Your task to perform on an android device: Open calendar and show me the third week of next month Image 0: 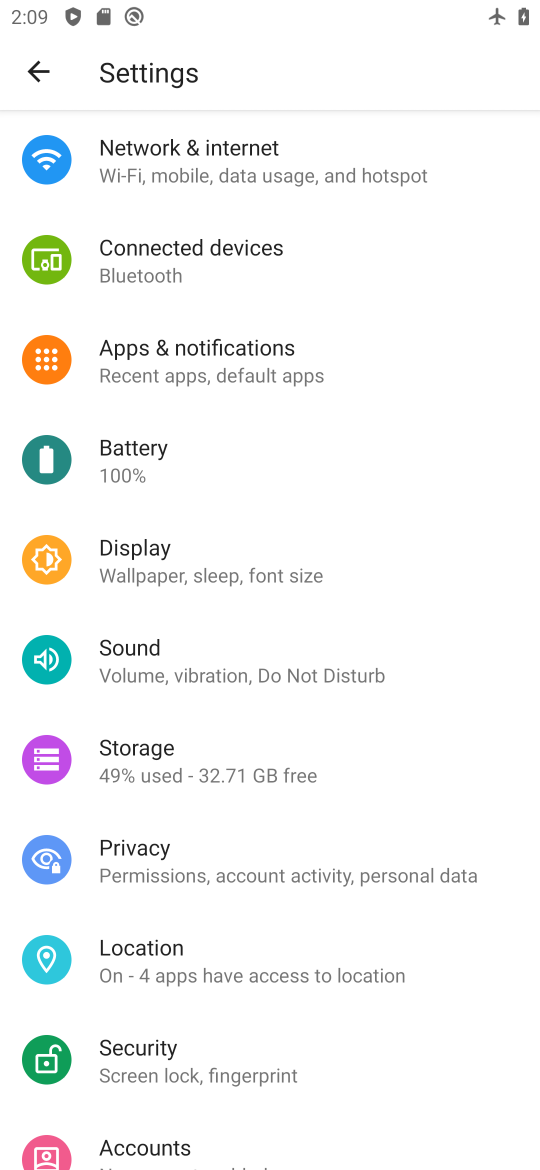
Step 0: press home button
Your task to perform on an android device: Open calendar and show me the third week of next month Image 1: 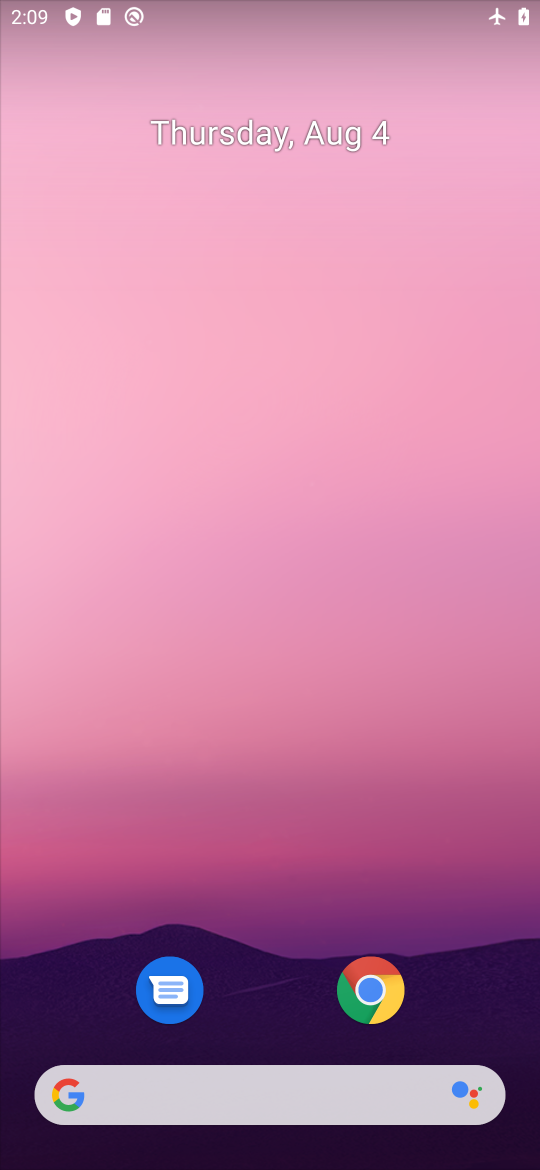
Step 1: drag from (278, 1039) to (268, 217)
Your task to perform on an android device: Open calendar and show me the third week of next month Image 2: 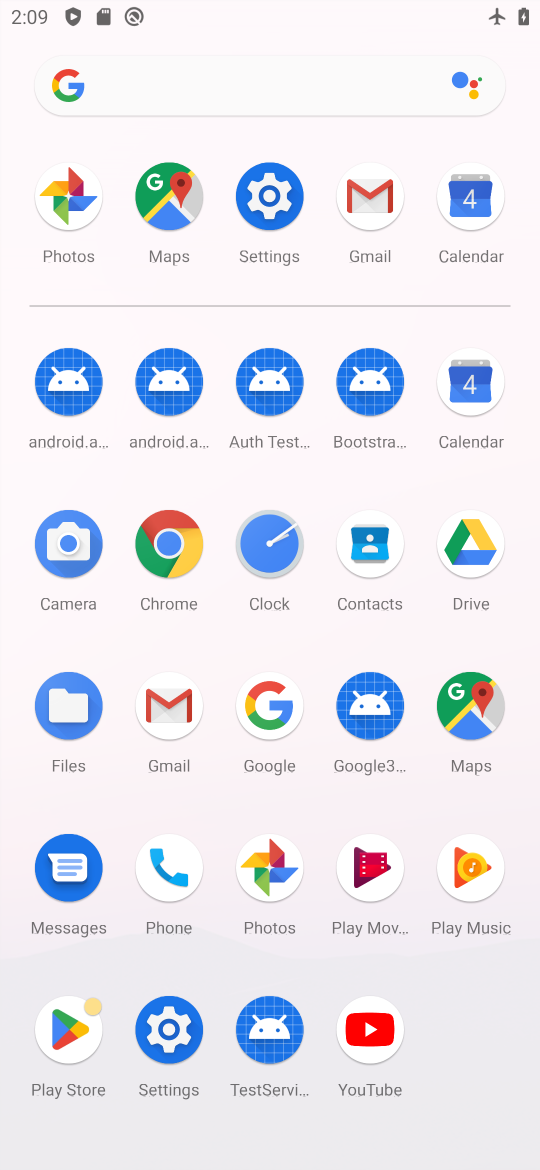
Step 2: click (454, 427)
Your task to perform on an android device: Open calendar and show me the third week of next month Image 3: 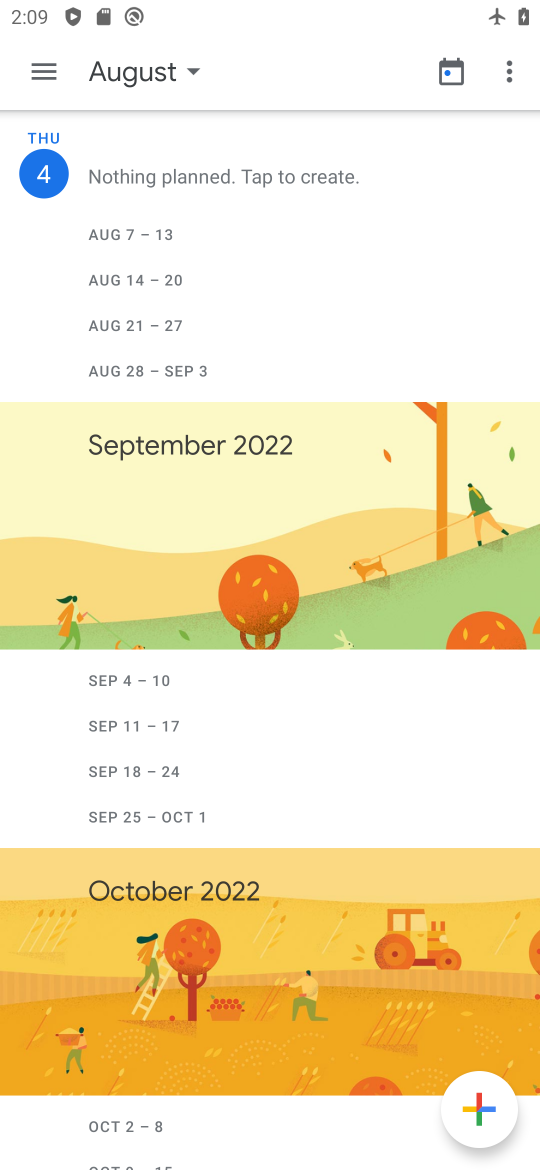
Step 3: task complete